Your task to perform on an android device: allow cookies in the chrome app Image 0: 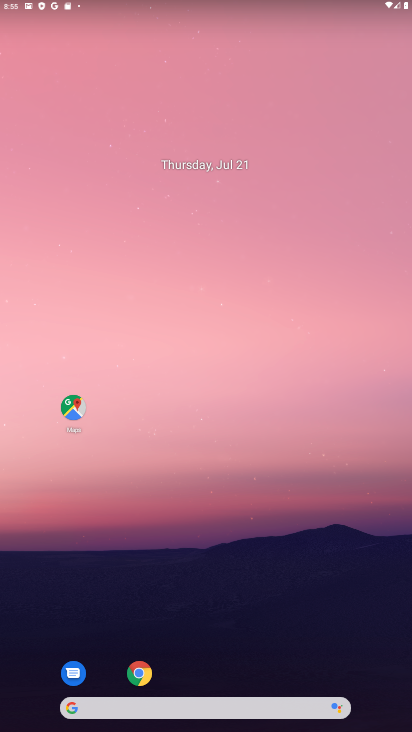
Step 0: press home button
Your task to perform on an android device: allow cookies in the chrome app Image 1: 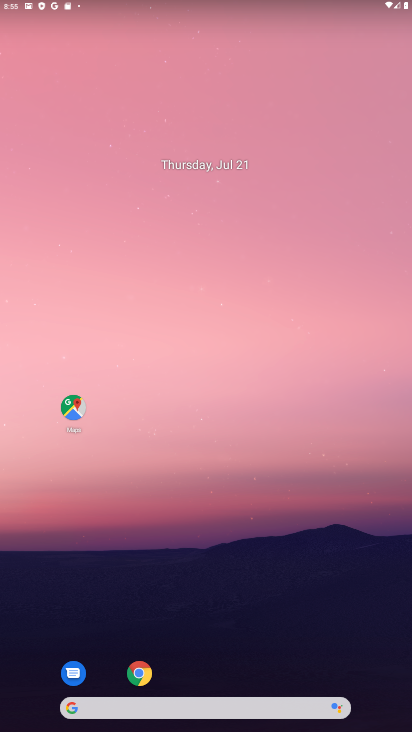
Step 1: click (136, 667)
Your task to perform on an android device: allow cookies in the chrome app Image 2: 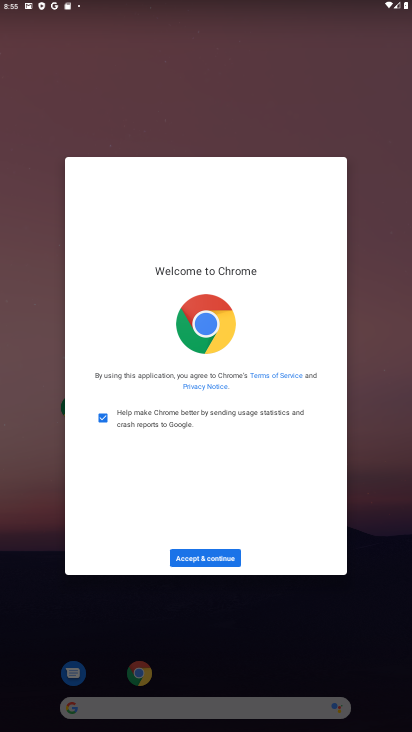
Step 2: click (201, 553)
Your task to perform on an android device: allow cookies in the chrome app Image 3: 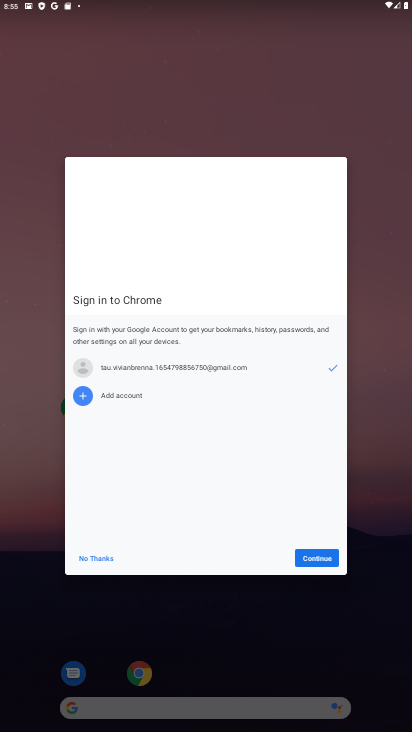
Step 3: click (319, 554)
Your task to perform on an android device: allow cookies in the chrome app Image 4: 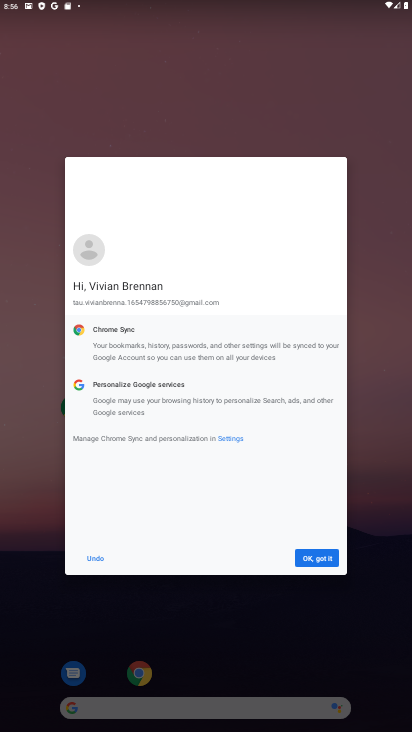
Step 4: click (315, 558)
Your task to perform on an android device: allow cookies in the chrome app Image 5: 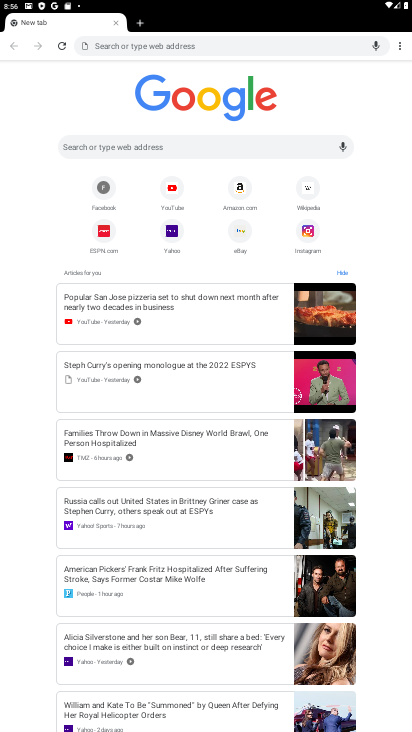
Step 5: click (402, 42)
Your task to perform on an android device: allow cookies in the chrome app Image 6: 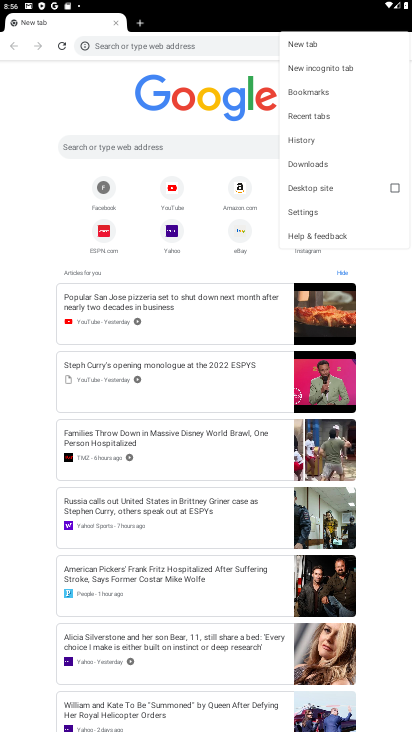
Step 6: click (322, 210)
Your task to perform on an android device: allow cookies in the chrome app Image 7: 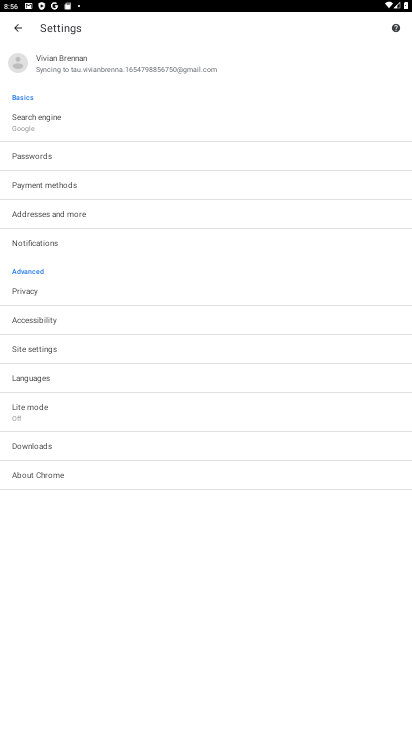
Step 7: click (65, 354)
Your task to perform on an android device: allow cookies in the chrome app Image 8: 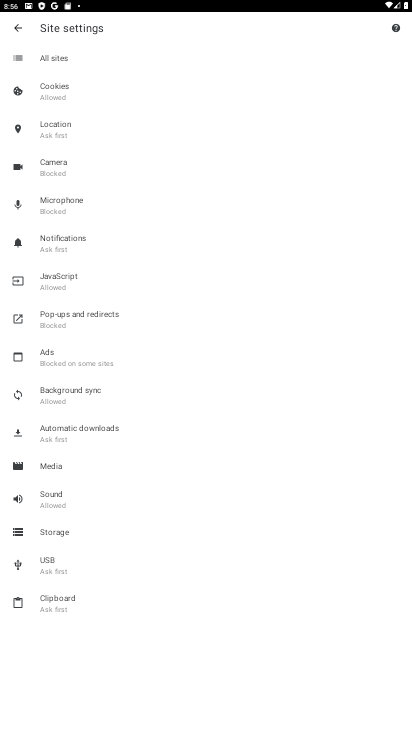
Step 8: click (86, 89)
Your task to perform on an android device: allow cookies in the chrome app Image 9: 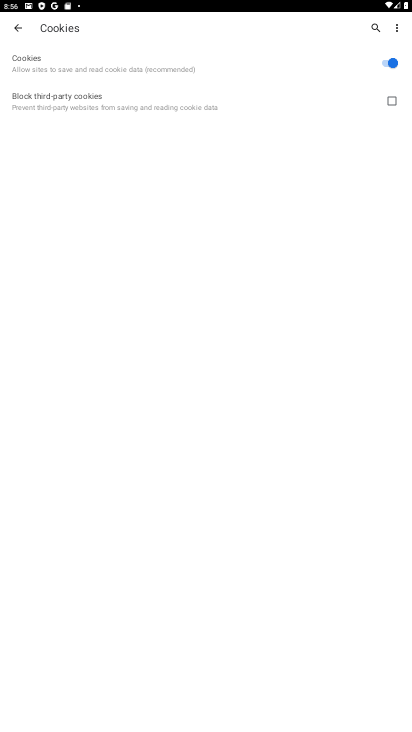
Step 9: task complete